Your task to perform on an android device: Search for beats solo 3 on amazon.com, select the first entry, and add it to the cart. Image 0: 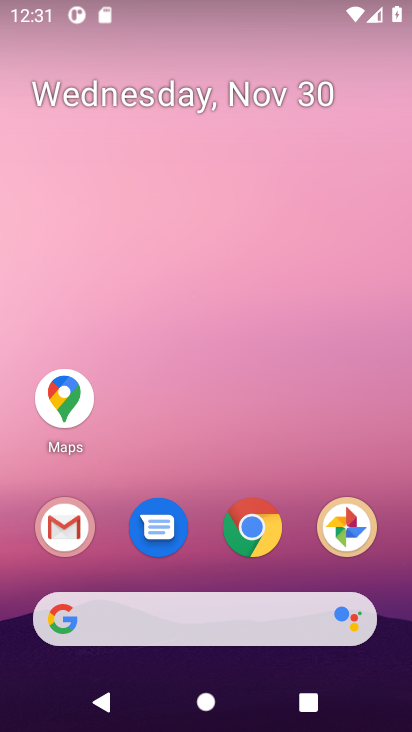
Step 0: click (156, 612)
Your task to perform on an android device: Search for beats solo 3 on amazon.com, select the first entry, and add it to the cart. Image 1: 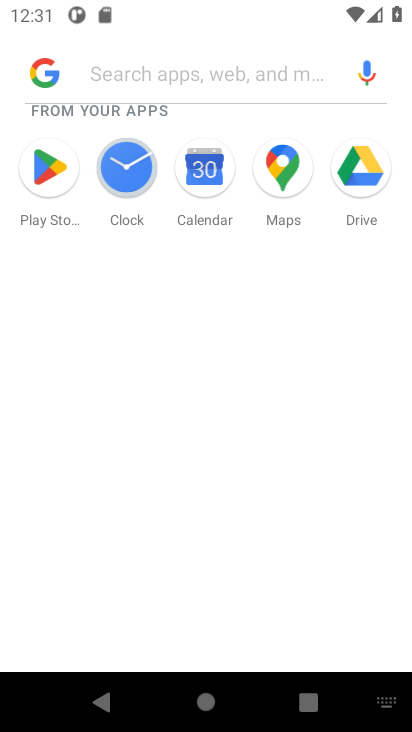
Step 1: press home button
Your task to perform on an android device: Search for beats solo 3 on amazon.com, select the first entry, and add it to the cart. Image 2: 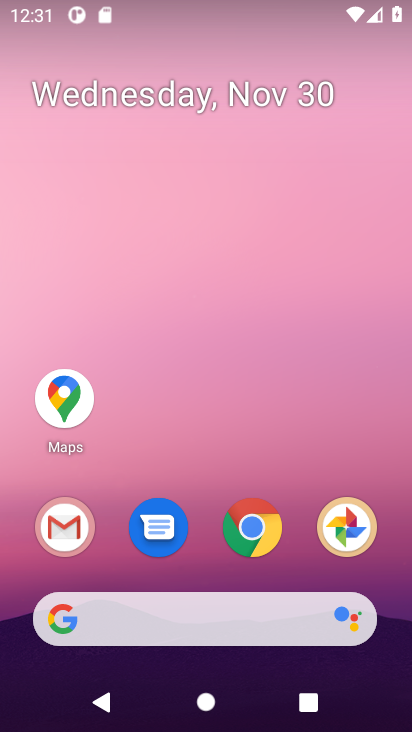
Step 2: click (252, 559)
Your task to perform on an android device: Search for beats solo 3 on amazon.com, select the first entry, and add it to the cart. Image 3: 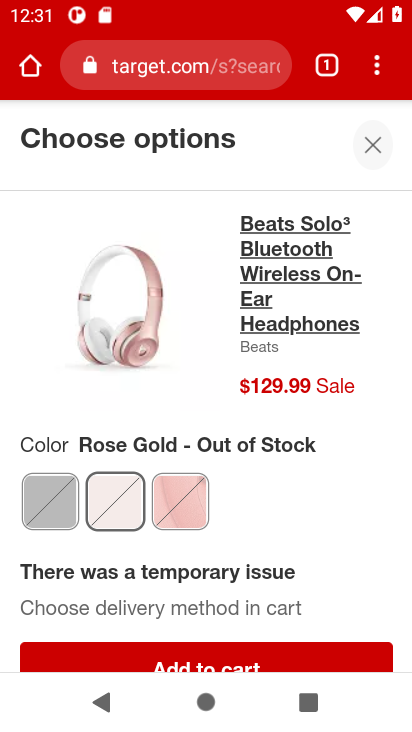
Step 3: click (211, 79)
Your task to perform on an android device: Search for beats solo 3 on amazon.com, select the first entry, and add it to the cart. Image 4: 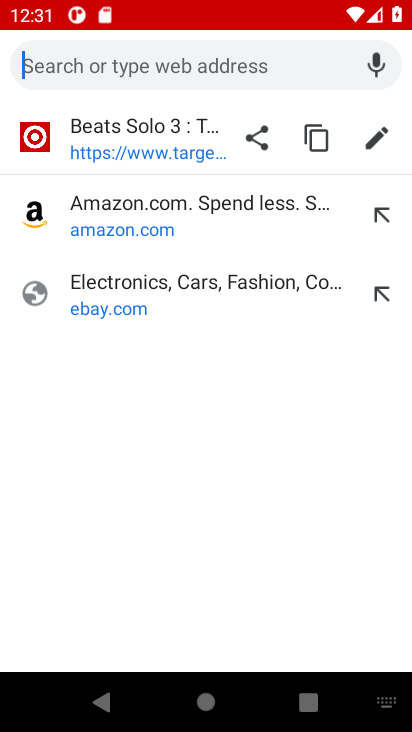
Step 4: click (178, 241)
Your task to perform on an android device: Search for beats solo 3 on amazon.com, select the first entry, and add it to the cart. Image 5: 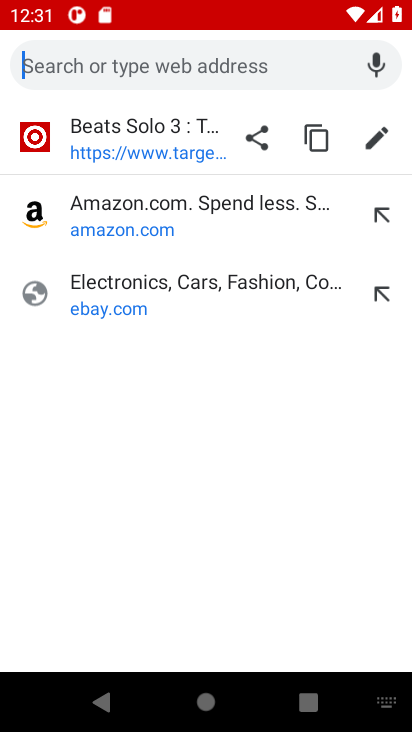
Step 5: click (178, 241)
Your task to perform on an android device: Search for beats solo 3 on amazon.com, select the first entry, and add it to the cart. Image 6: 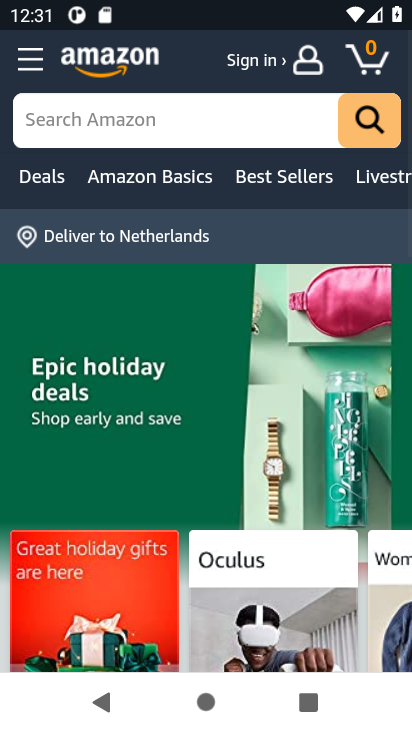
Step 6: drag from (226, 557) to (217, 360)
Your task to perform on an android device: Search for beats solo 3 on amazon.com, select the first entry, and add it to the cart. Image 7: 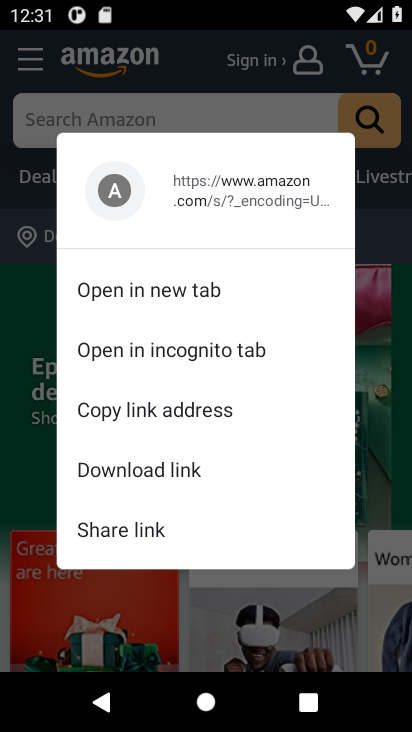
Step 7: click (42, 119)
Your task to perform on an android device: Search for beats solo 3 on amazon.com, select the first entry, and add it to the cart. Image 8: 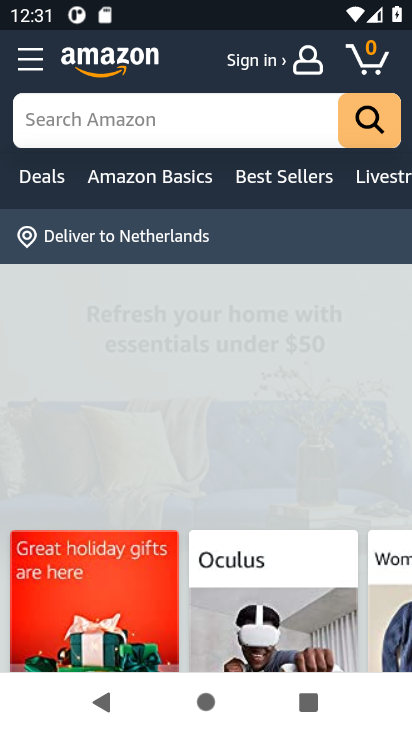
Step 8: click (42, 119)
Your task to perform on an android device: Search for beats solo 3 on amazon.com, select the first entry, and add it to the cart. Image 9: 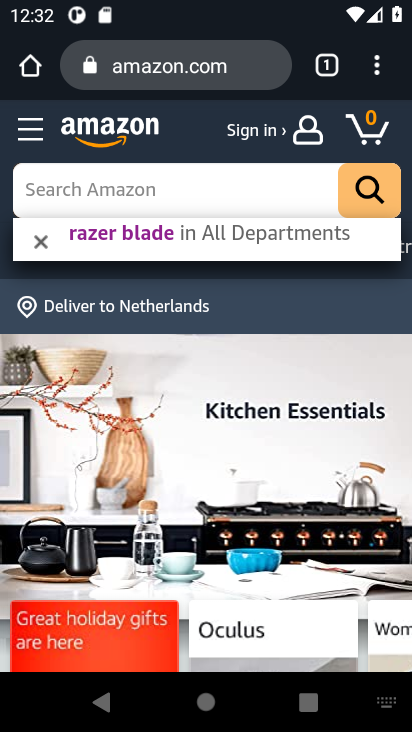
Step 9: type "beats solo 3"
Your task to perform on an android device: Search for beats solo 3 on amazon.com, select the first entry, and add it to the cart. Image 10: 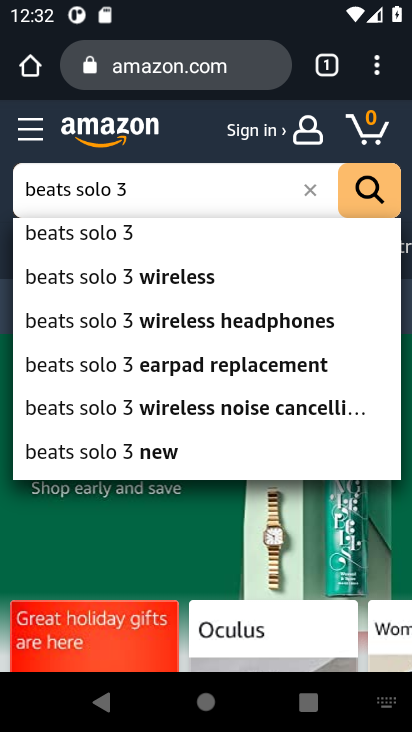
Step 10: click (116, 230)
Your task to perform on an android device: Search for beats solo 3 on amazon.com, select the first entry, and add it to the cart. Image 11: 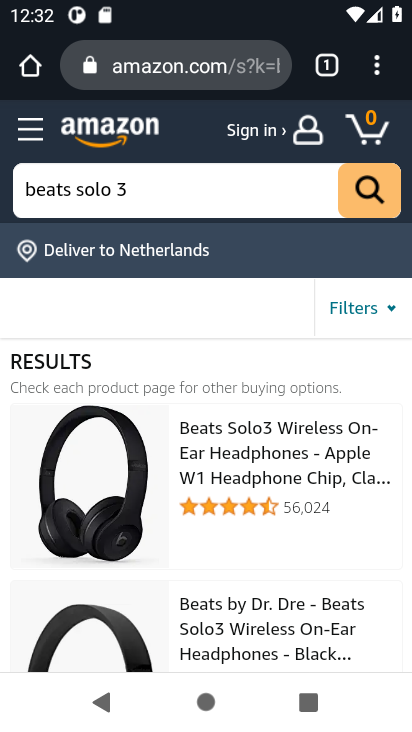
Step 11: click (214, 433)
Your task to perform on an android device: Search for beats solo 3 on amazon.com, select the first entry, and add it to the cart. Image 12: 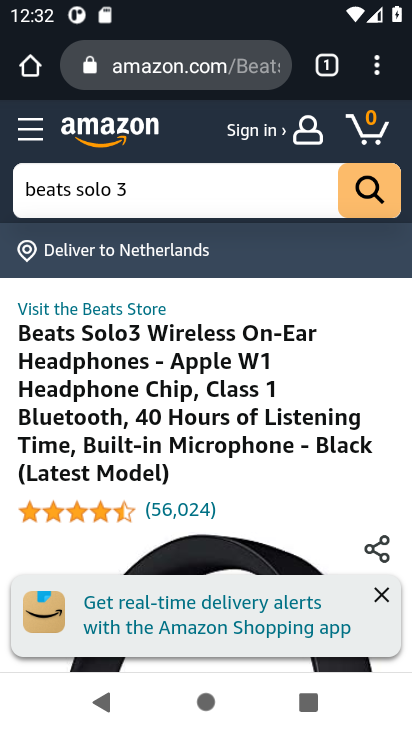
Step 12: click (375, 595)
Your task to perform on an android device: Search for beats solo 3 on amazon.com, select the first entry, and add it to the cart. Image 13: 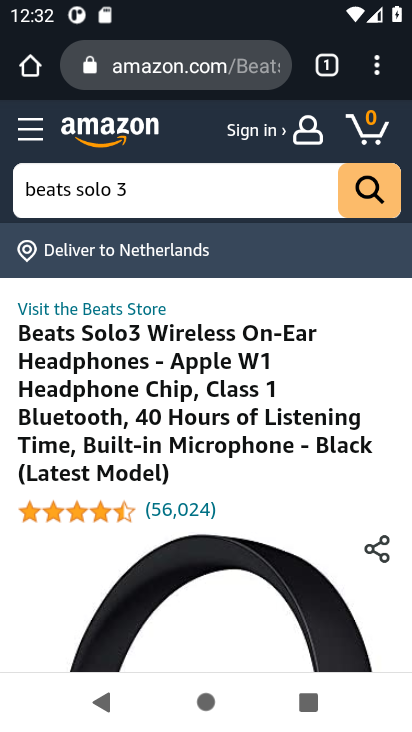
Step 13: drag from (267, 599) to (267, 273)
Your task to perform on an android device: Search for beats solo 3 on amazon.com, select the first entry, and add it to the cart. Image 14: 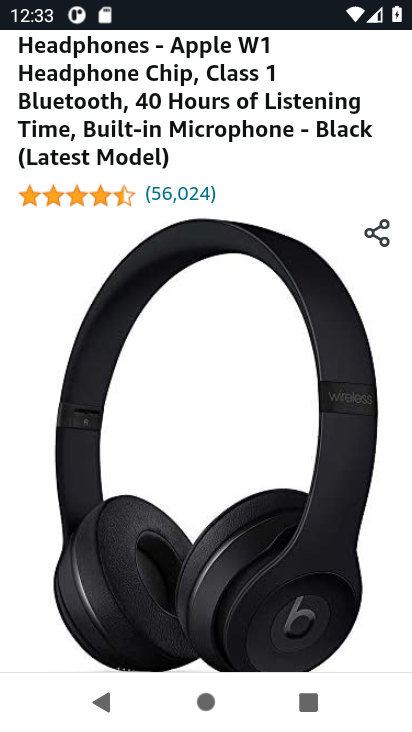
Step 14: drag from (217, 544) to (217, 325)
Your task to perform on an android device: Search for beats solo 3 on amazon.com, select the first entry, and add it to the cart. Image 15: 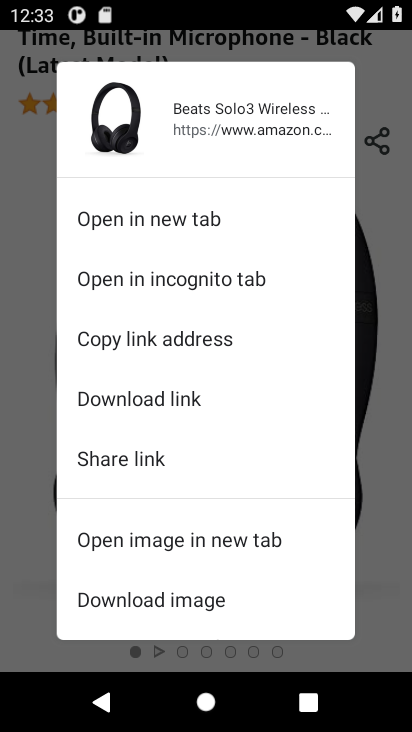
Step 15: drag from (387, 580) to (339, 86)
Your task to perform on an android device: Search for beats solo 3 on amazon.com, select the first entry, and add it to the cart. Image 16: 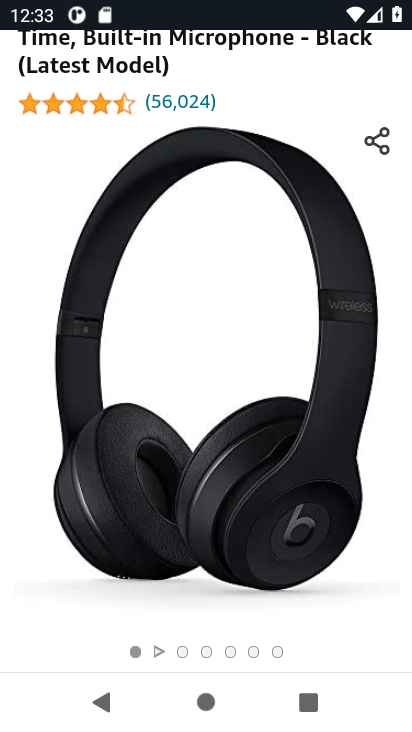
Step 16: drag from (215, 555) to (213, 433)
Your task to perform on an android device: Search for beats solo 3 on amazon.com, select the first entry, and add it to the cart. Image 17: 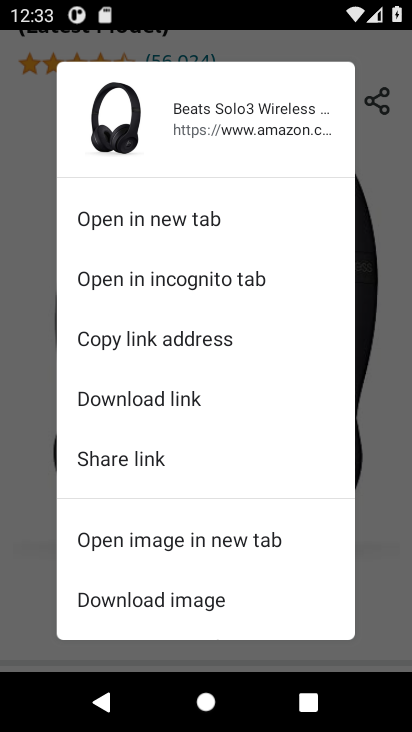
Step 17: click (367, 569)
Your task to perform on an android device: Search for beats solo 3 on amazon.com, select the first entry, and add it to the cart. Image 18: 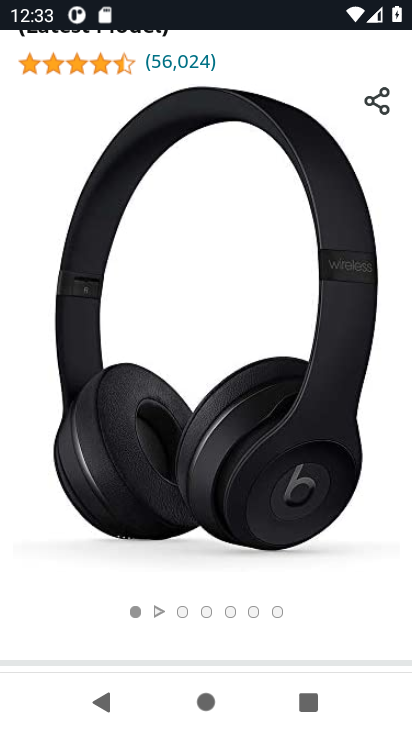
Step 18: task complete